Your task to perform on an android device: open chrome and create a bookmark for the current page Image 0: 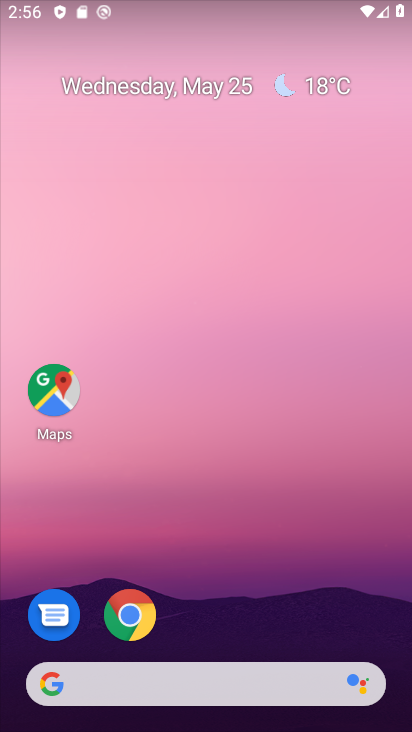
Step 0: drag from (289, 693) to (231, 243)
Your task to perform on an android device: open chrome and create a bookmark for the current page Image 1: 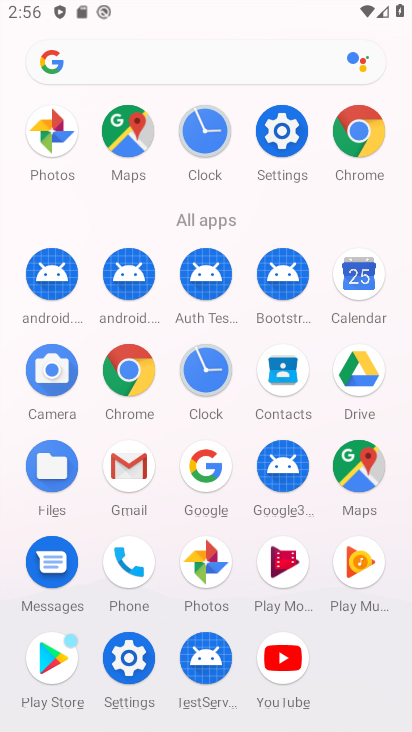
Step 1: click (364, 112)
Your task to perform on an android device: open chrome and create a bookmark for the current page Image 2: 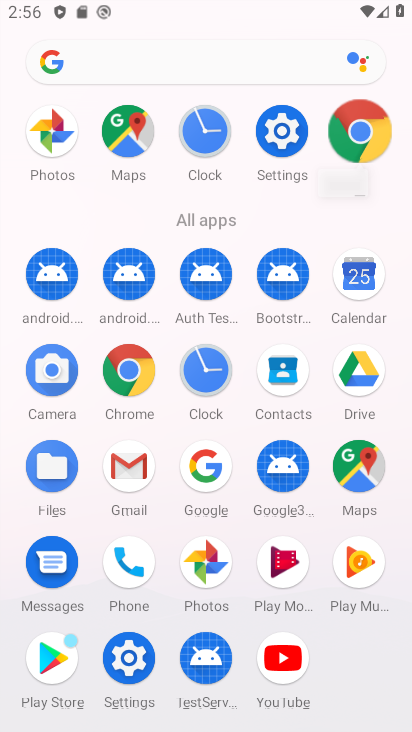
Step 2: click (364, 120)
Your task to perform on an android device: open chrome and create a bookmark for the current page Image 3: 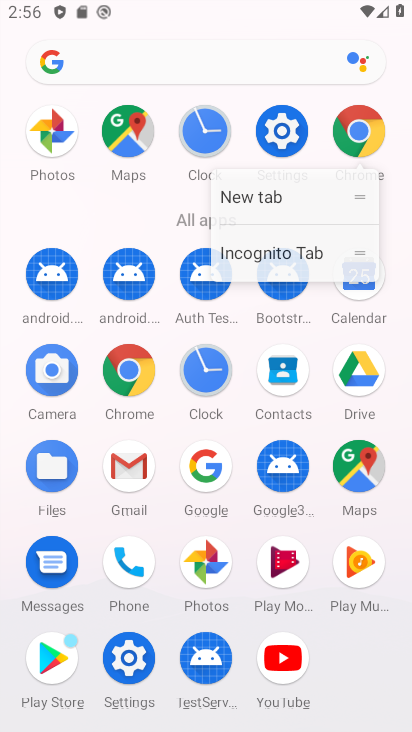
Step 3: click (364, 121)
Your task to perform on an android device: open chrome and create a bookmark for the current page Image 4: 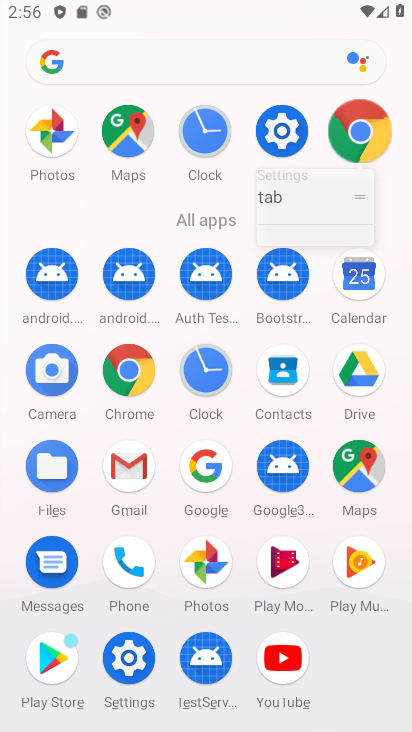
Step 4: click (360, 118)
Your task to perform on an android device: open chrome and create a bookmark for the current page Image 5: 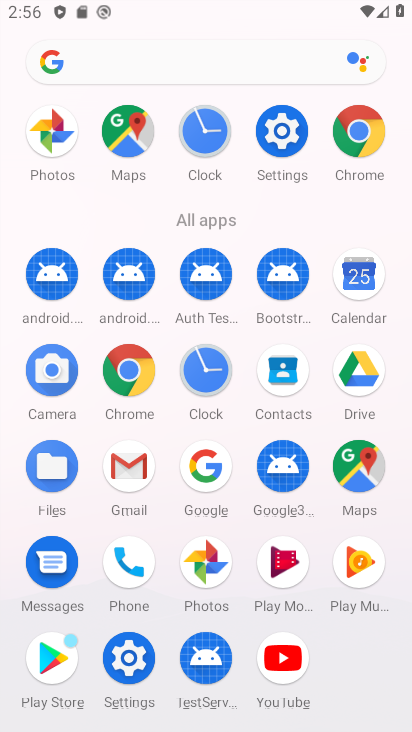
Step 5: click (360, 117)
Your task to perform on an android device: open chrome and create a bookmark for the current page Image 6: 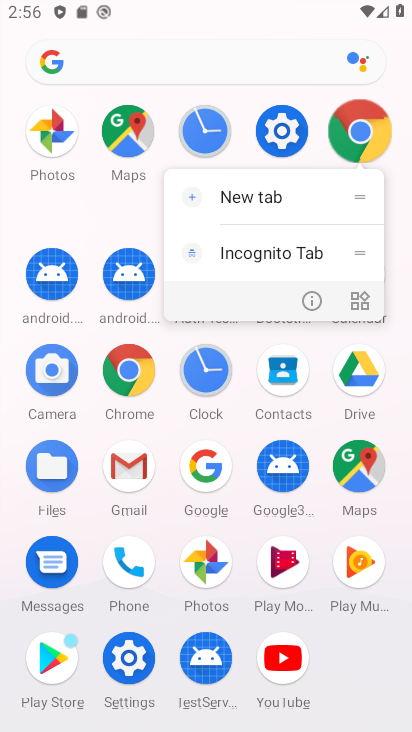
Step 6: click (363, 126)
Your task to perform on an android device: open chrome and create a bookmark for the current page Image 7: 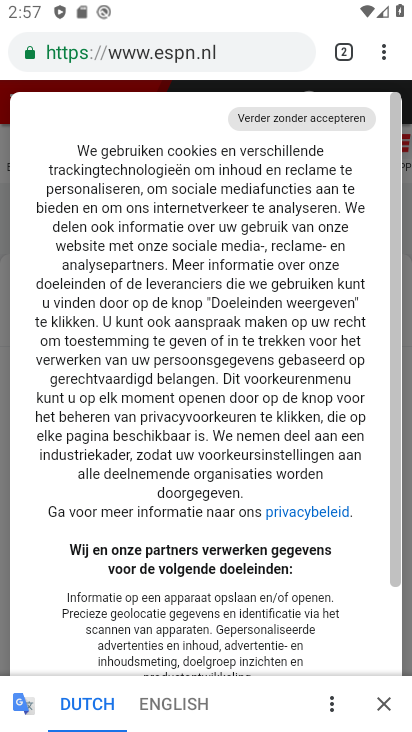
Step 7: click (383, 59)
Your task to perform on an android device: open chrome and create a bookmark for the current page Image 8: 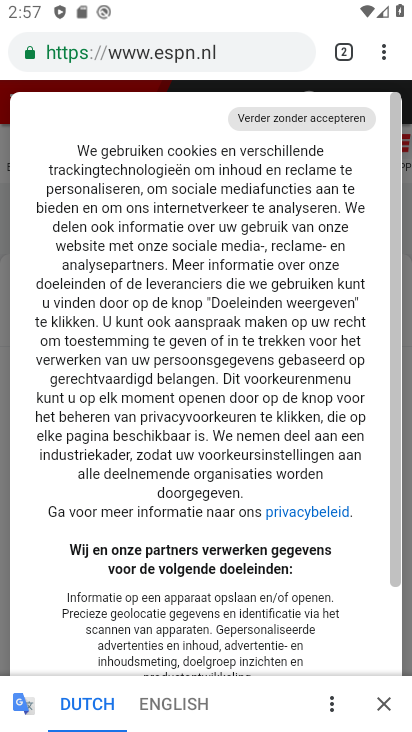
Step 8: drag from (384, 45) to (198, 201)
Your task to perform on an android device: open chrome and create a bookmark for the current page Image 9: 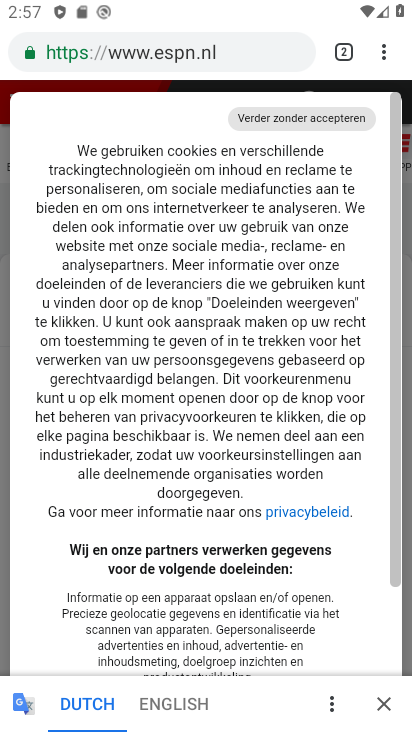
Step 9: click (201, 188)
Your task to perform on an android device: open chrome and create a bookmark for the current page Image 10: 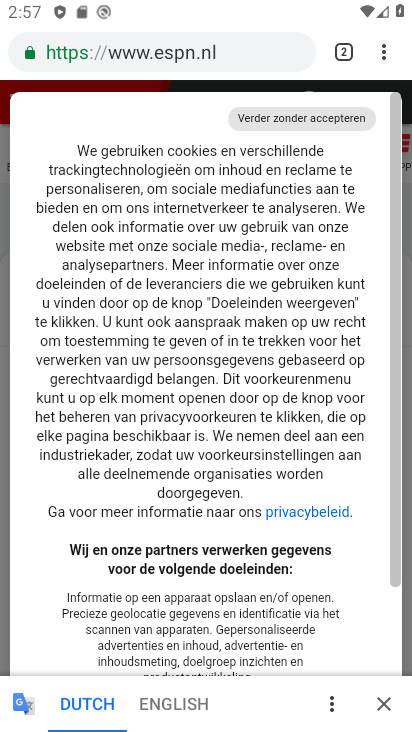
Step 10: click (201, 188)
Your task to perform on an android device: open chrome and create a bookmark for the current page Image 11: 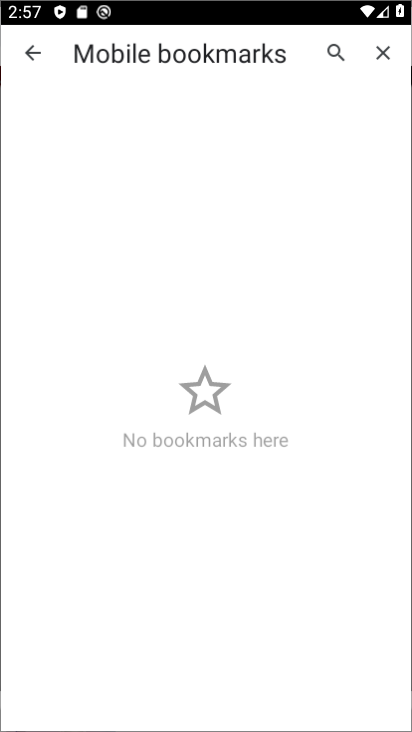
Step 11: click (195, 187)
Your task to perform on an android device: open chrome and create a bookmark for the current page Image 12: 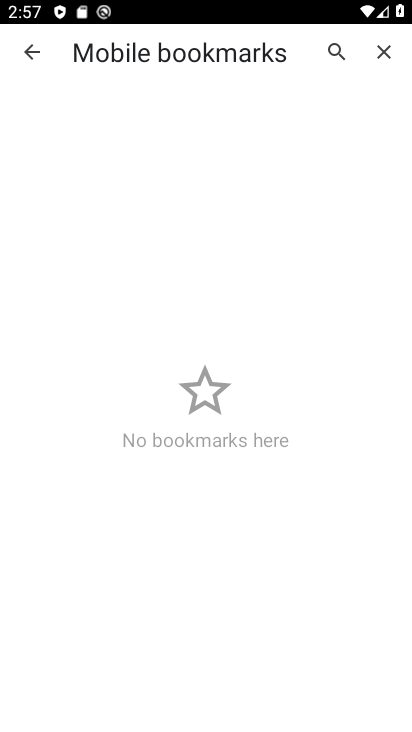
Step 12: task complete